Your task to perform on an android device: Do I have any events this weekend? Image 0: 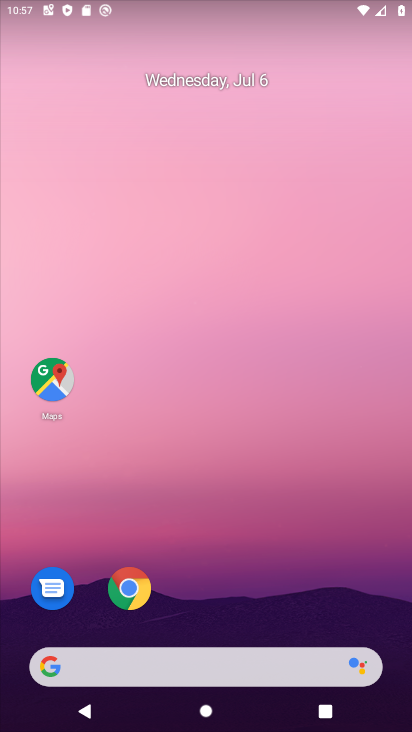
Step 0: drag from (210, 619) to (222, 182)
Your task to perform on an android device: Do I have any events this weekend? Image 1: 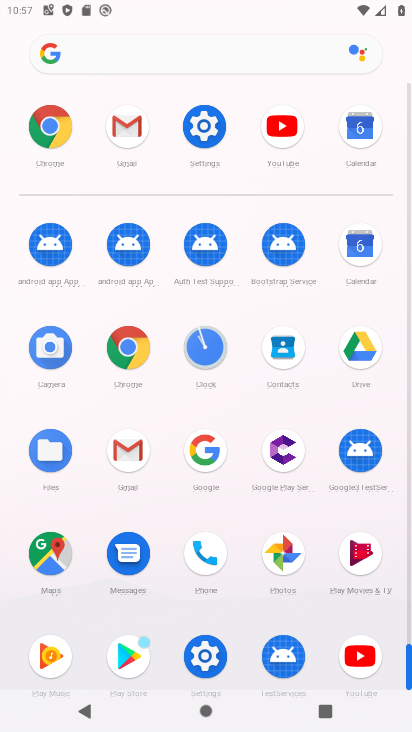
Step 1: click (357, 235)
Your task to perform on an android device: Do I have any events this weekend? Image 2: 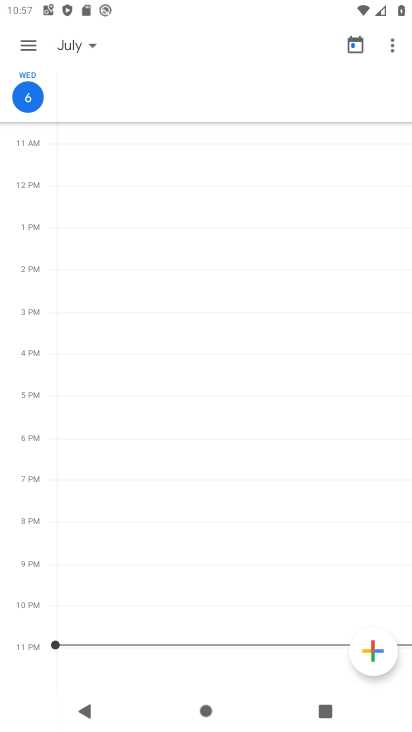
Step 2: click (30, 41)
Your task to perform on an android device: Do I have any events this weekend? Image 3: 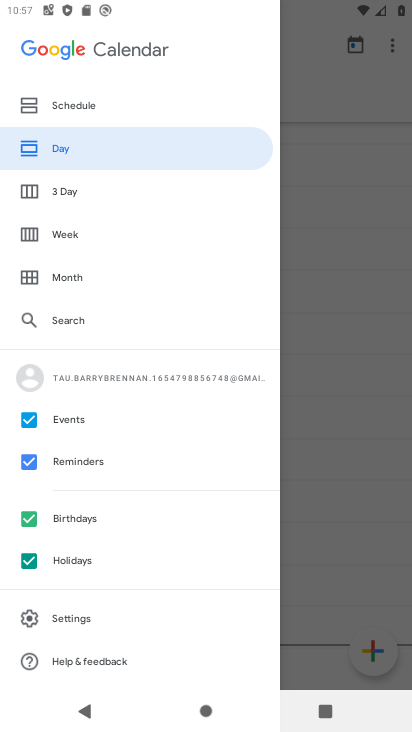
Step 3: click (67, 236)
Your task to perform on an android device: Do I have any events this weekend? Image 4: 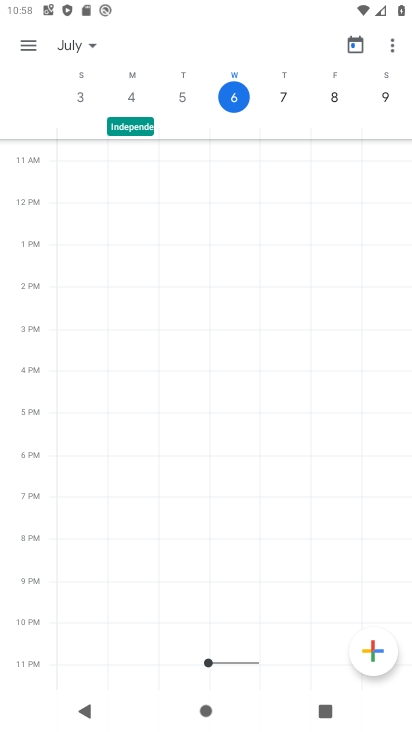
Step 4: task complete